Your task to perform on an android device: open a new tab in the chrome app Image 0: 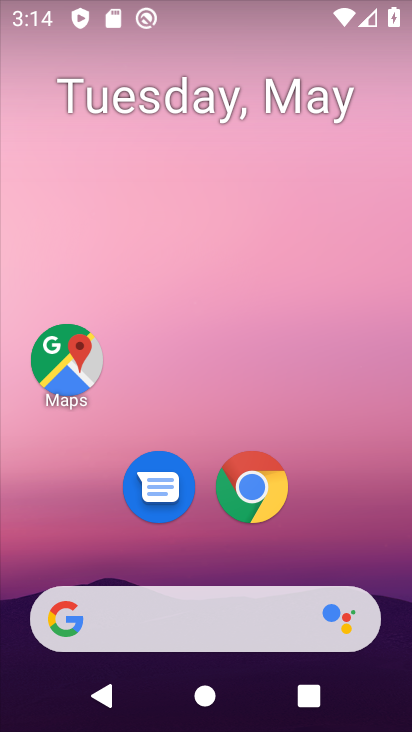
Step 0: click (252, 478)
Your task to perform on an android device: open a new tab in the chrome app Image 1: 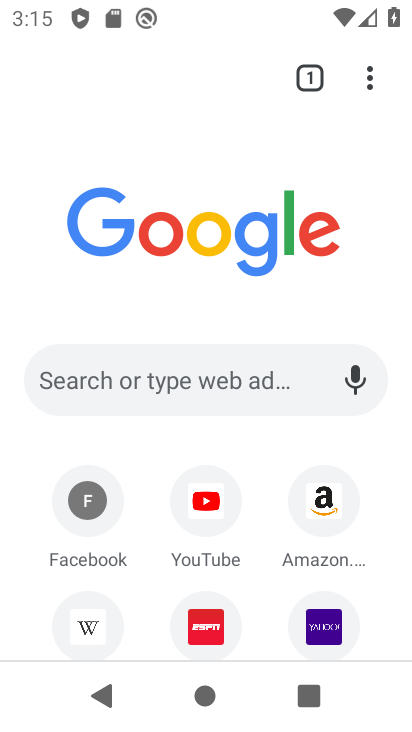
Step 1: click (300, 78)
Your task to perform on an android device: open a new tab in the chrome app Image 2: 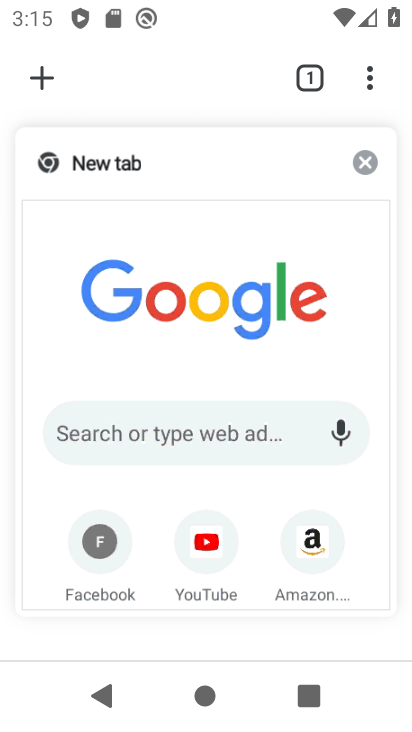
Step 2: click (40, 82)
Your task to perform on an android device: open a new tab in the chrome app Image 3: 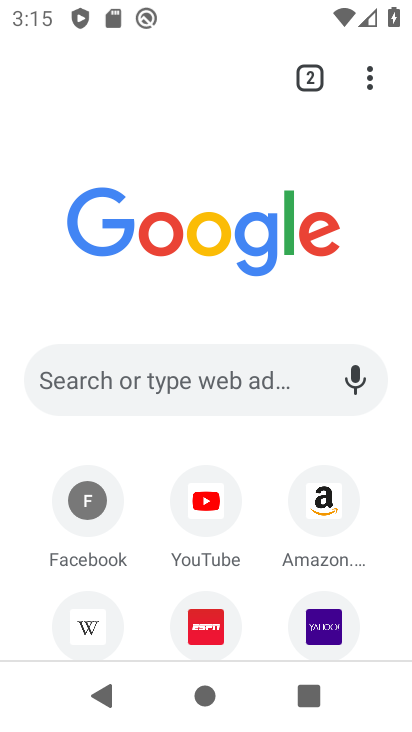
Step 3: task complete